Your task to perform on an android device: Is it going to rain this weekend? Image 0: 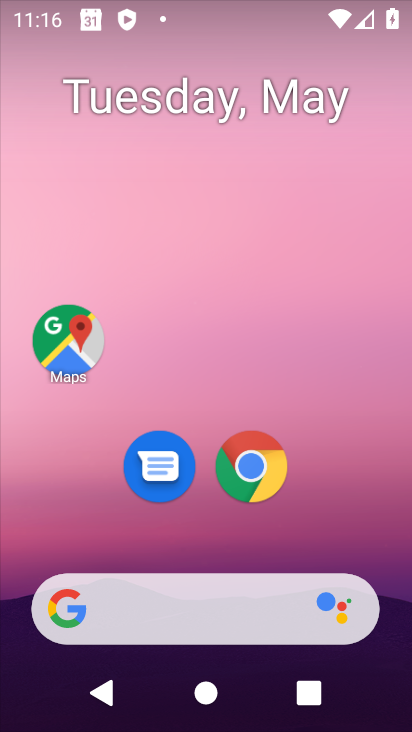
Step 0: drag from (196, 538) to (312, 19)
Your task to perform on an android device: Is it going to rain this weekend? Image 1: 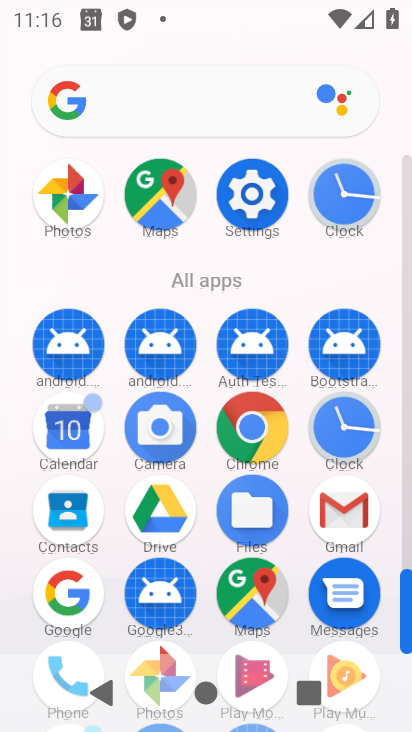
Step 1: click (160, 104)
Your task to perform on an android device: Is it going to rain this weekend? Image 2: 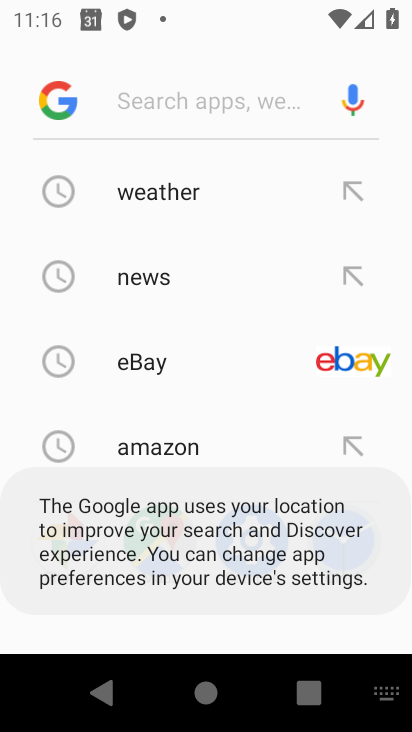
Step 2: click (138, 202)
Your task to perform on an android device: Is it going to rain this weekend? Image 3: 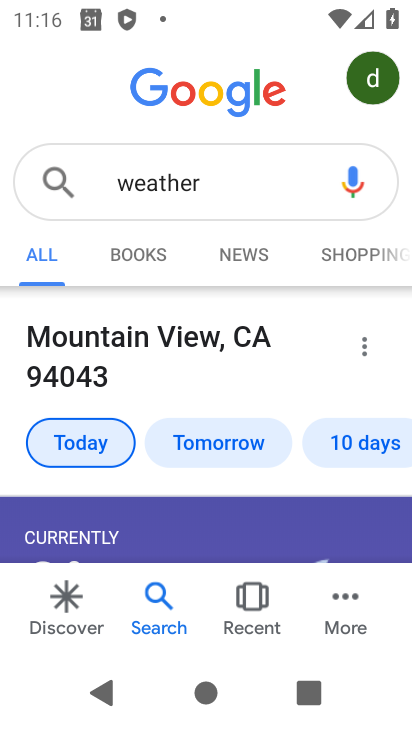
Step 3: click (357, 442)
Your task to perform on an android device: Is it going to rain this weekend? Image 4: 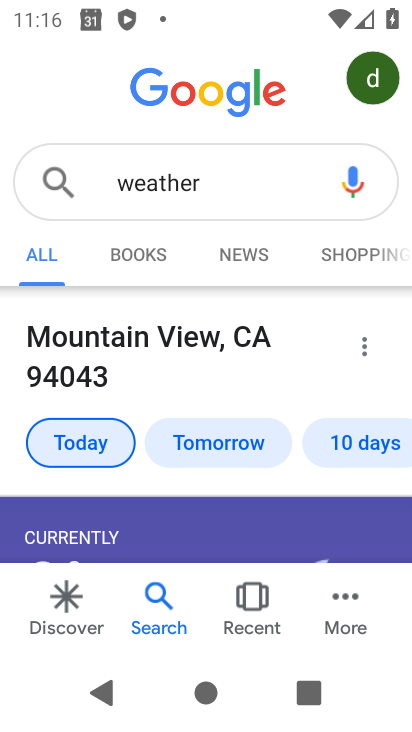
Step 4: click (363, 444)
Your task to perform on an android device: Is it going to rain this weekend? Image 5: 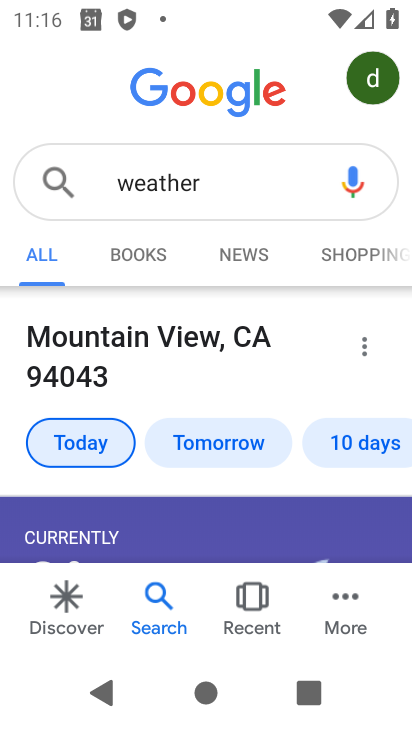
Step 5: task complete